Your task to perform on an android device: Open the calendar app, open the side menu, and click the "Day" option Image 0: 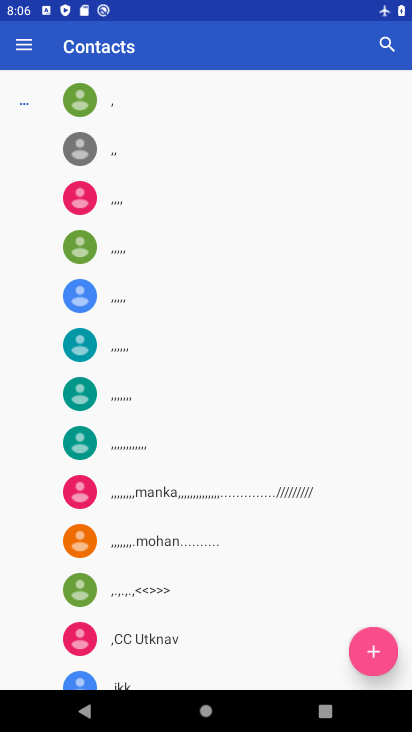
Step 0: press home button
Your task to perform on an android device: Open the calendar app, open the side menu, and click the "Day" option Image 1: 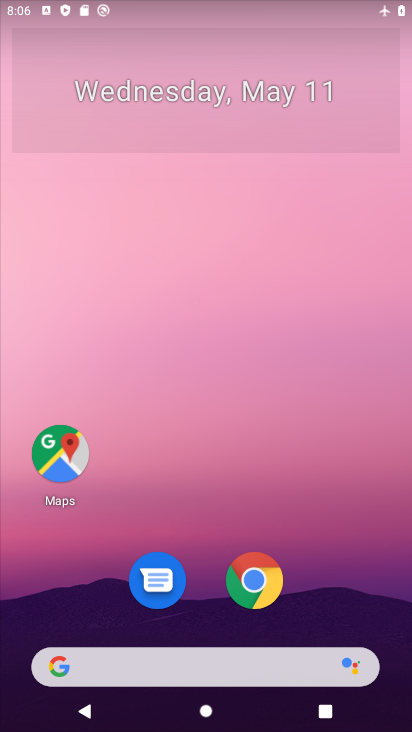
Step 1: drag from (246, 718) to (214, 263)
Your task to perform on an android device: Open the calendar app, open the side menu, and click the "Day" option Image 2: 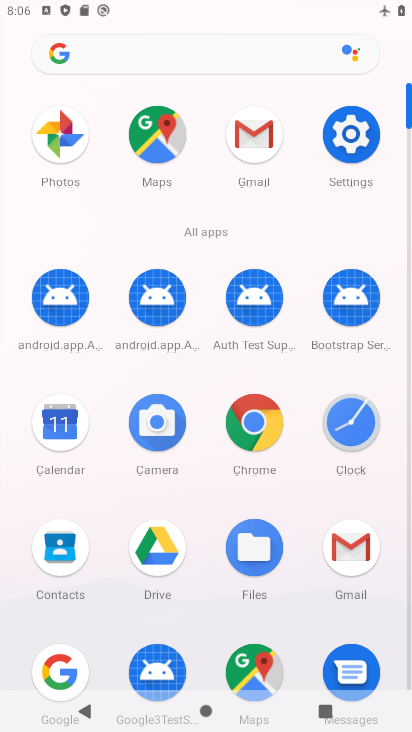
Step 2: click (51, 443)
Your task to perform on an android device: Open the calendar app, open the side menu, and click the "Day" option Image 3: 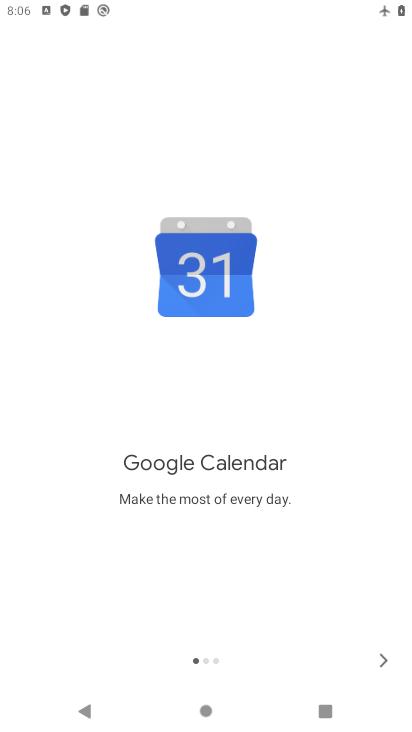
Step 3: click (380, 646)
Your task to perform on an android device: Open the calendar app, open the side menu, and click the "Day" option Image 4: 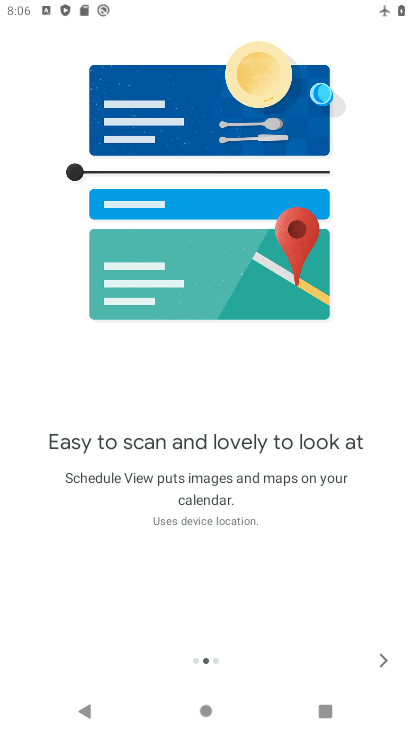
Step 4: click (379, 649)
Your task to perform on an android device: Open the calendar app, open the side menu, and click the "Day" option Image 5: 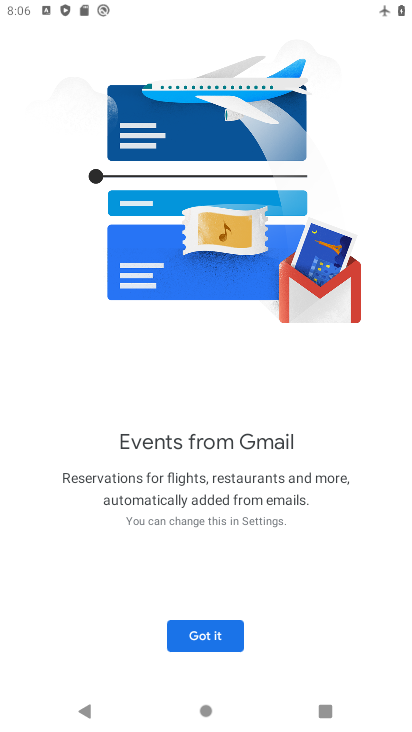
Step 5: click (185, 639)
Your task to perform on an android device: Open the calendar app, open the side menu, and click the "Day" option Image 6: 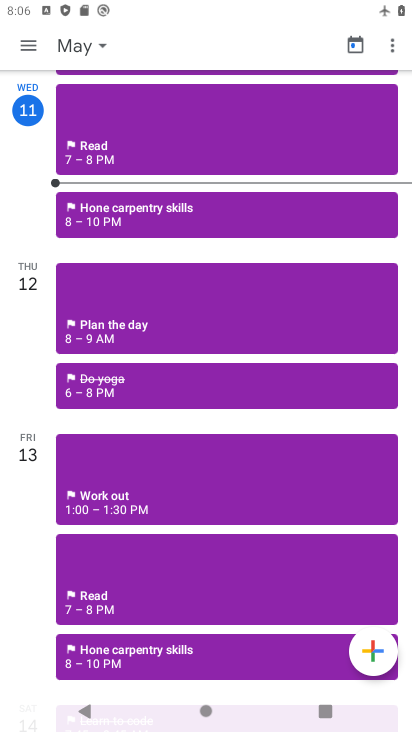
Step 6: click (33, 43)
Your task to perform on an android device: Open the calendar app, open the side menu, and click the "Day" option Image 7: 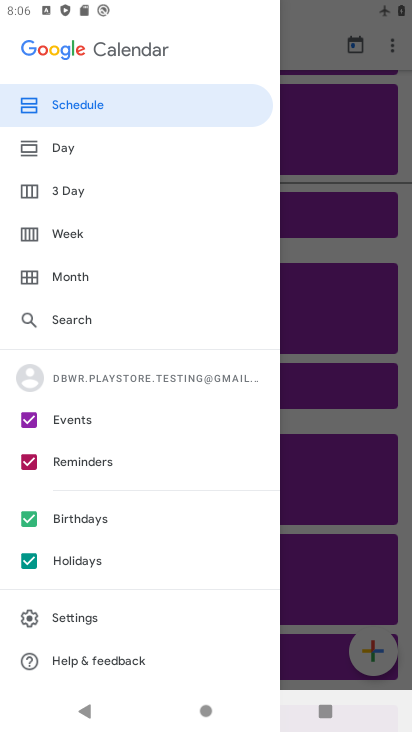
Step 7: click (77, 161)
Your task to perform on an android device: Open the calendar app, open the side menu, and click the "Day" option Image 8: 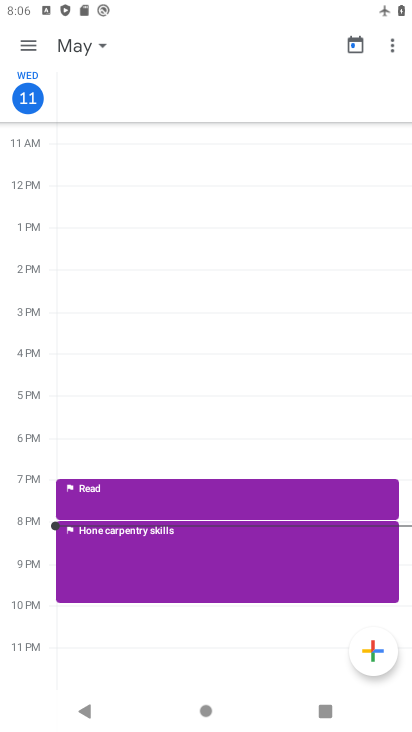
Step 8: task complete